Your task to perform on an android device: open sync settings in chrome Image 0: 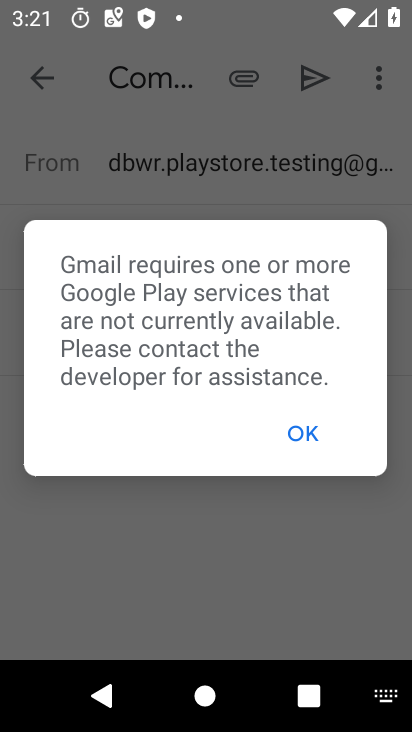
Step 0: press home button
Your task to perform on an android device: open sync settings in chrome Image 1: 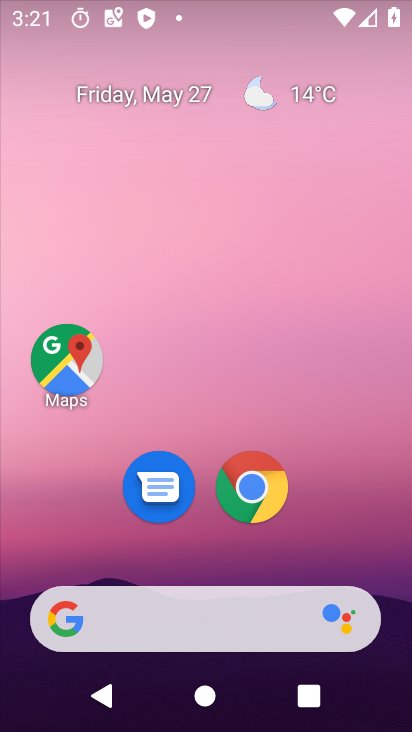
Step 1: drag from (331, 492) to (38, 26)
Your task to perform on an android device: open sync settings in chrome Image 2: 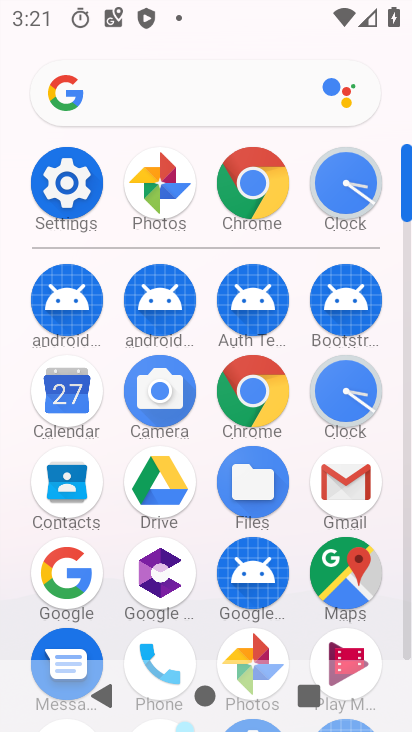
Step 2: click (244, 186)
Your task to perform on an android device: open sync settings in chrome Image 3: 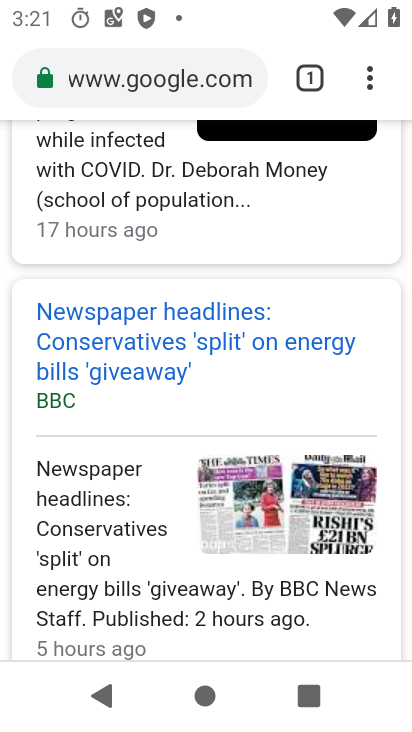
Step 3: drag from (375, 78) to (168, 559)
Your task to perform on an android device: open sync settings in chrome Image 4: 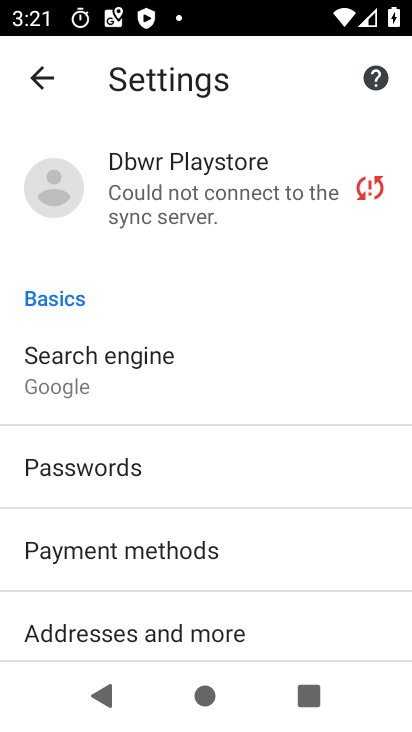
Step 4: click (183, 160)
Your task to perform on an android device: open sync settings in chrome Image 5: 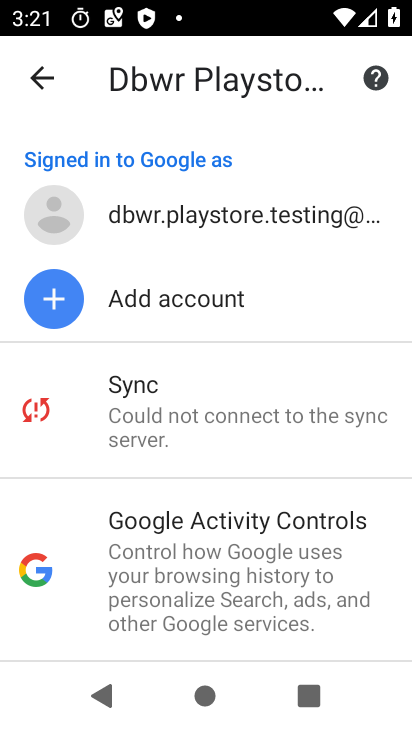
Step 5: click (147, 408)
Your task to perform on an android device: open sync settings in chrome Image 6: 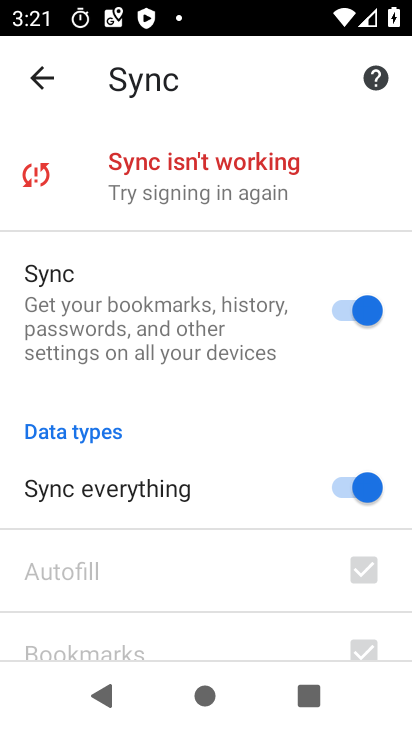
Step 6: task complete